Your task to perform on an android device: turn off airplane mode Image 0: 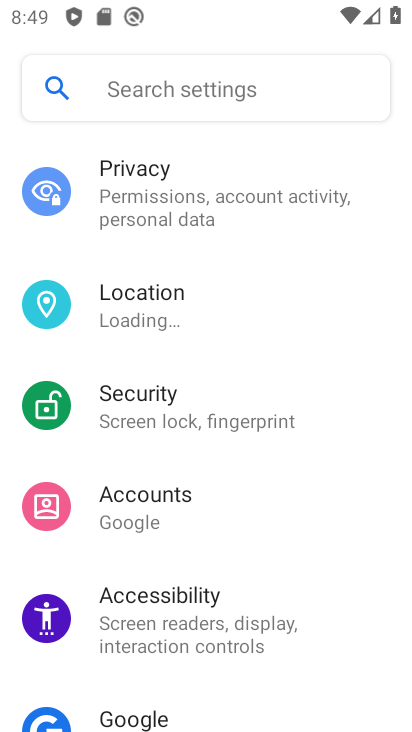
Step 0: press home button
Your task to perform on an android device: turn off airplane mode Image 1: 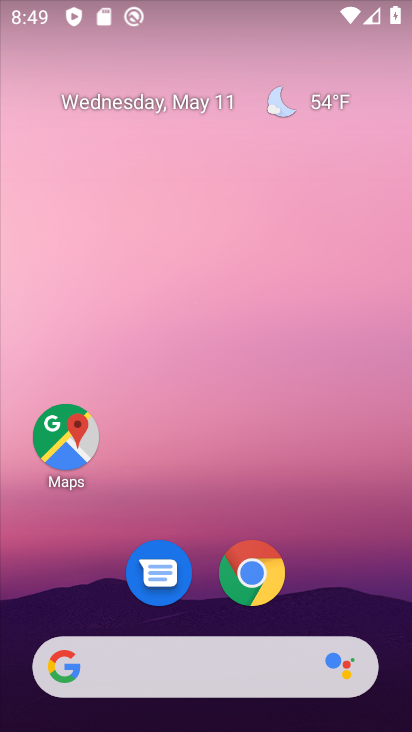
Step 1: task complete